Your task to perform on an android device: set an alarm Image 0: 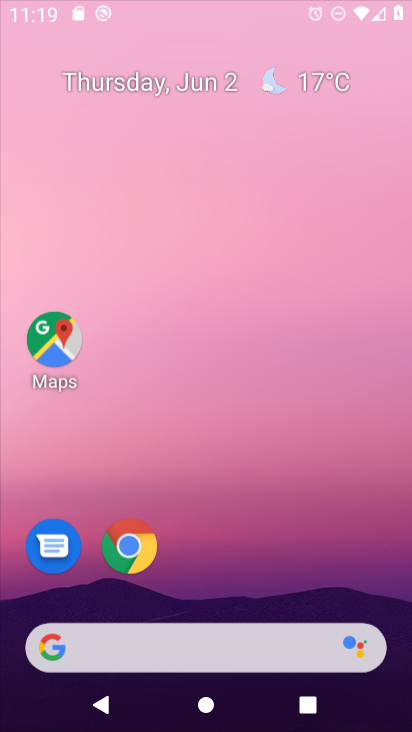
Step 0: click (208, 15)
Your task to perform on an android device: set an alarm Image 1: 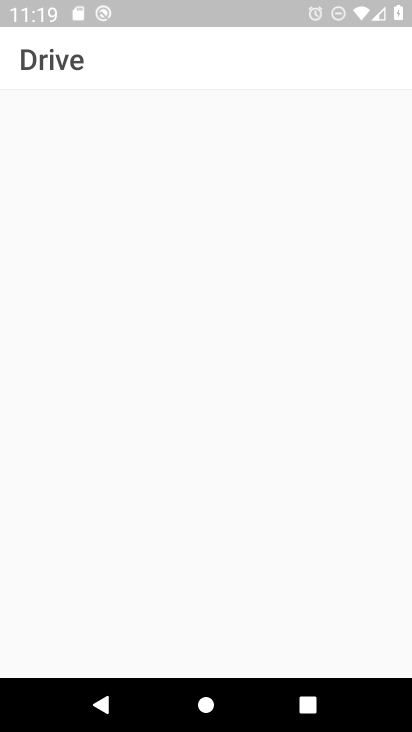
Step 1: drag from (262, 502) to (183, 24)
Your task to perform on an android device: set an alarm Image 2: 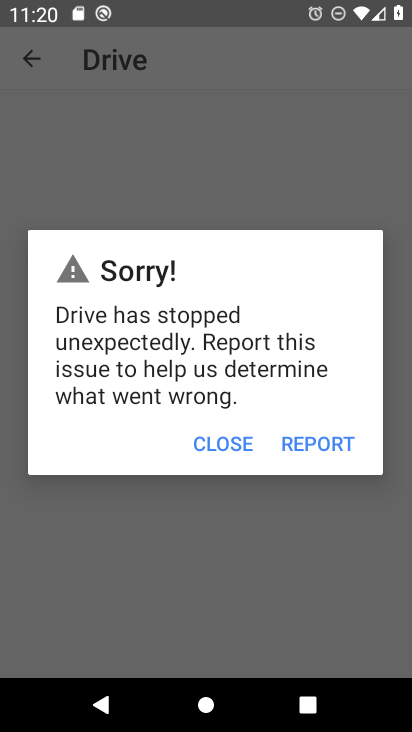
Step 2: press back button
Your task to perform on an android device: set an alarm Image 3: 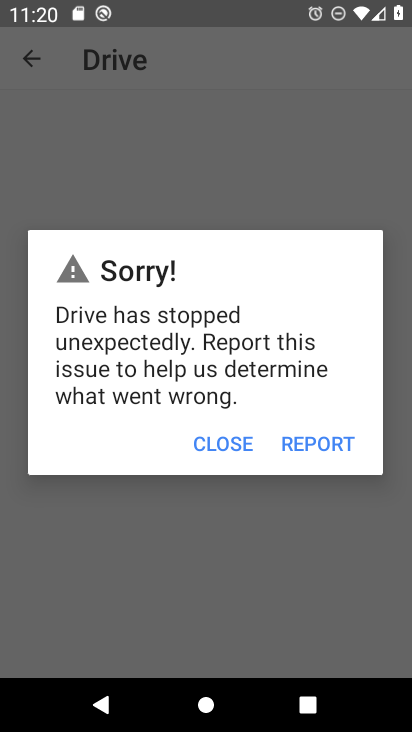
Step 3: press back button
Your task to perform on an android device: set an alarm Image 4: 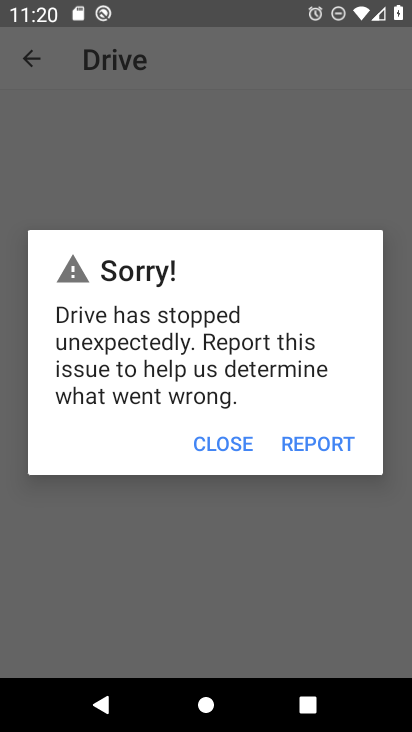
Step 4: press home button
Your task to perform on an android device: set an alarm Image 5: 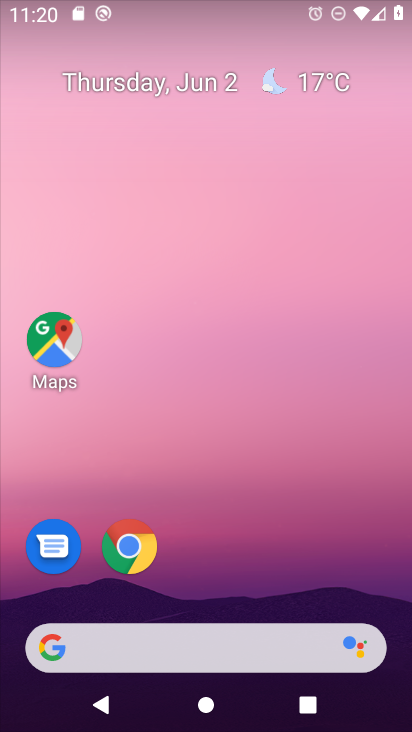
Step 5: drag from (274, 400) to (216, 28)
Your task to perform on an android device: set an alarm Image 6: 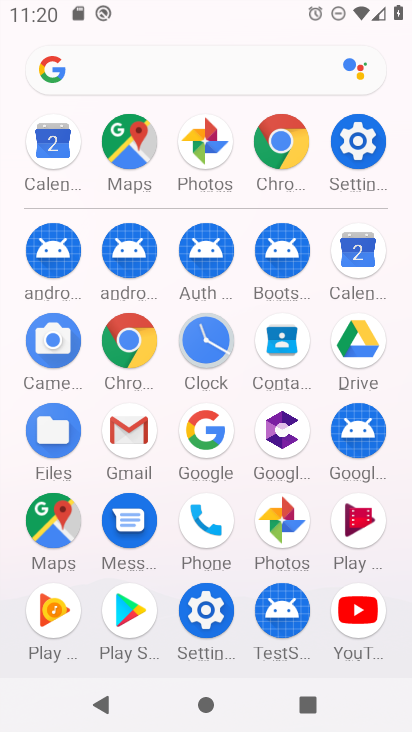
Step 6: drag from (17, 546) to (0, 258)
Your task to perform on an android device: set an alarm Image 7: 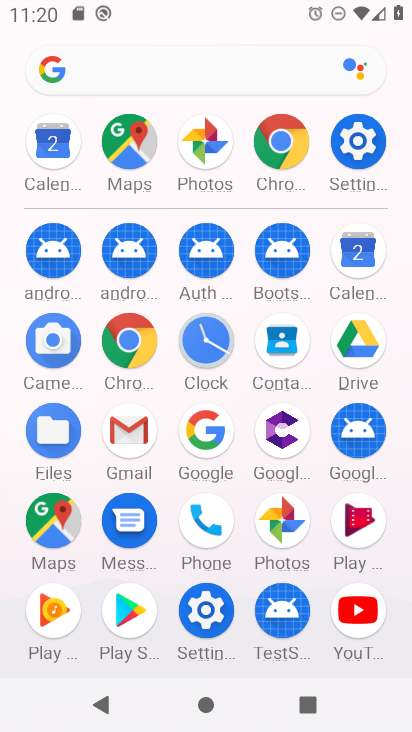
Step 7: click (206, 336)
Your task to perform on an android device: set an alarm Image 8: 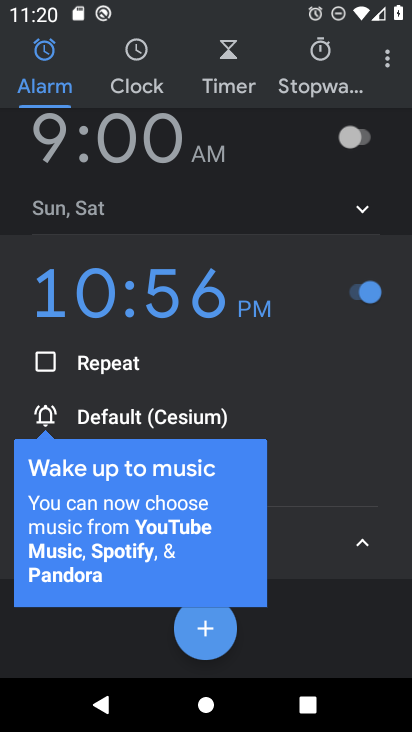
Step 8: click (200, 641)
Your task to perform on an android device: set an alarm Image 9: 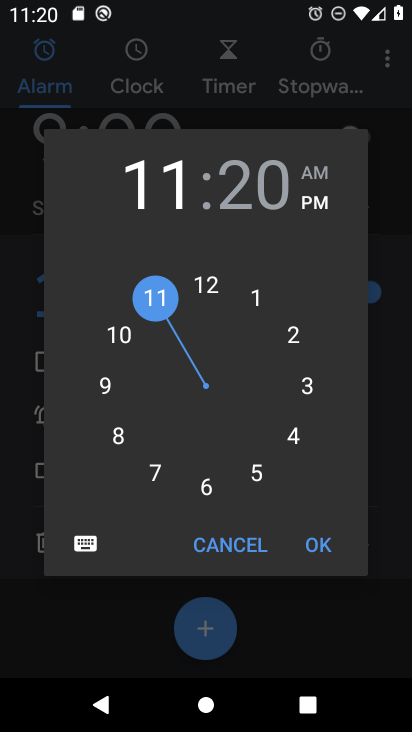
Step 9: click (311, 538)
Your task to perform on an android device: set an alarm Image 10: 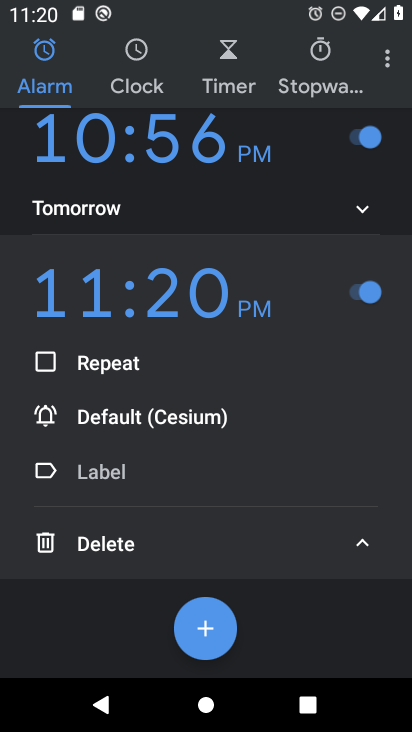
Step 10: task complete